Your task to perform on an android device: open the mobile data screen to see how much data has been used Image 0: 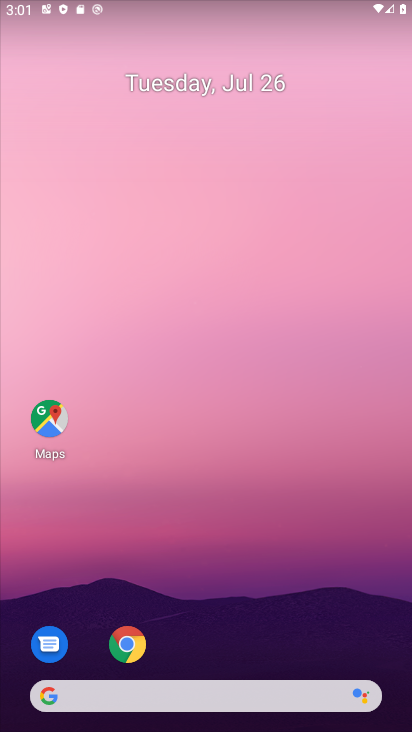
Step 0: press home button
Your task to perform on an android device: open the mobile data screen to see how much data has been used Image 1: 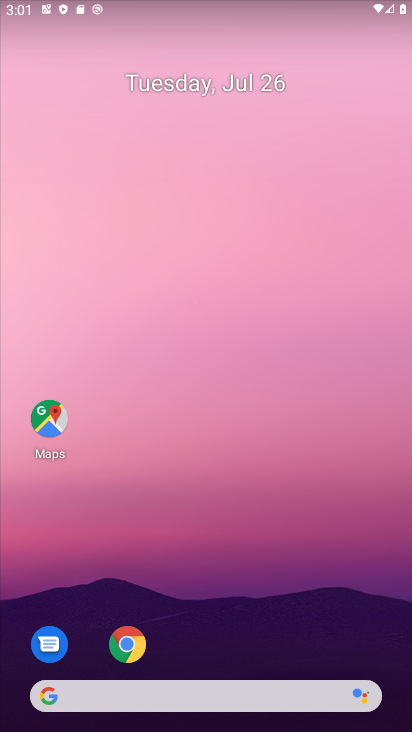
Step 1: drag from (236, 581) to (260, 74)
Your task to perform on an android device: open the mobile data screen to see how much data has been used Image 2: 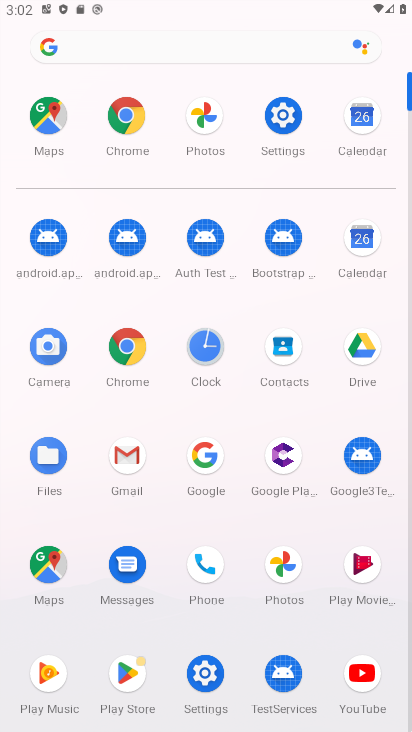
Step 2: click (270, 116)
Your task to perform on an android device: open the mobile data screen to see how much data has been used Image 3: 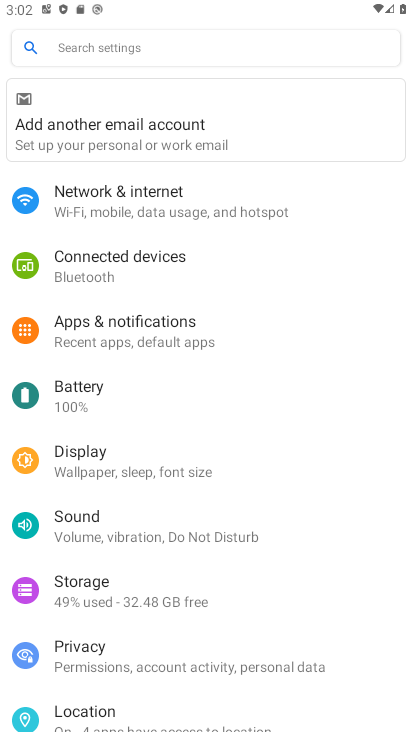
Step 3: click (128, 204)
Your task to perform on an android device: open the mobile data screen to see how much data has been used Image 4: 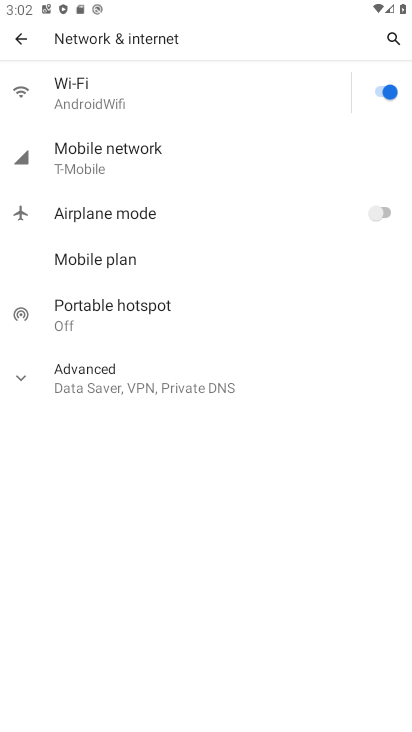
Step 4: click (74, 153)
Your task to perform on an android device: open the mobile data screen to see how much data has been used Image 5: 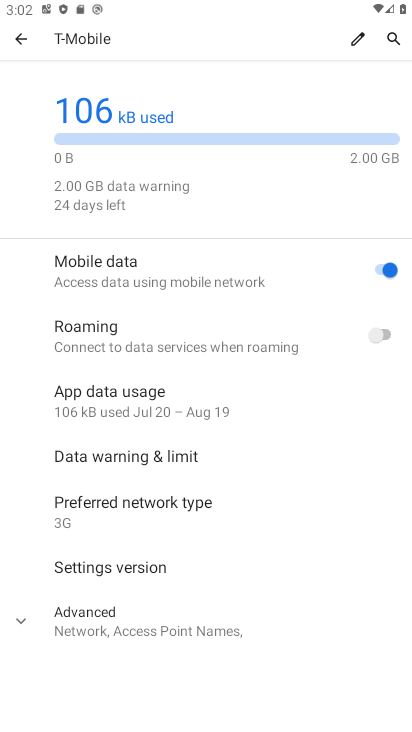
Step 5: task complete